Your task to perform on an android device: Go to wifi settings Image 0: 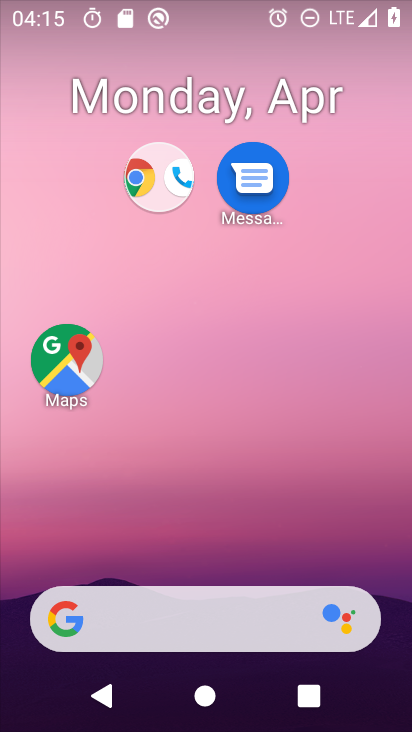
Step 0: drag from (255, 549) to (252, 5)
Your task to perform on an android device: Go to wifi settings Image 1: 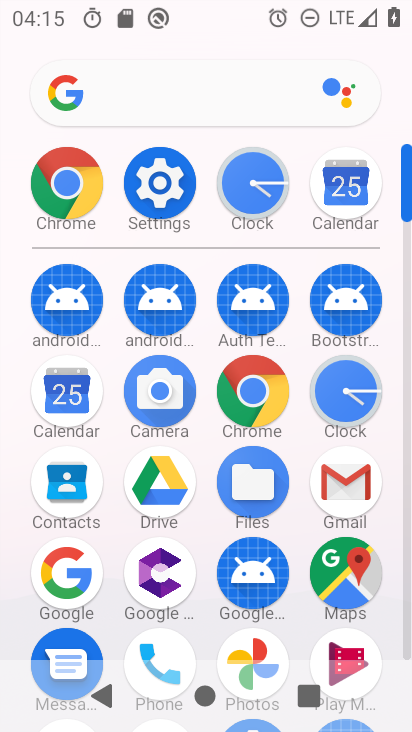
Step 1: drag from (210, 647) to (195, 152)
Your task to perform on an android device: Go to wifi settings Image 2: 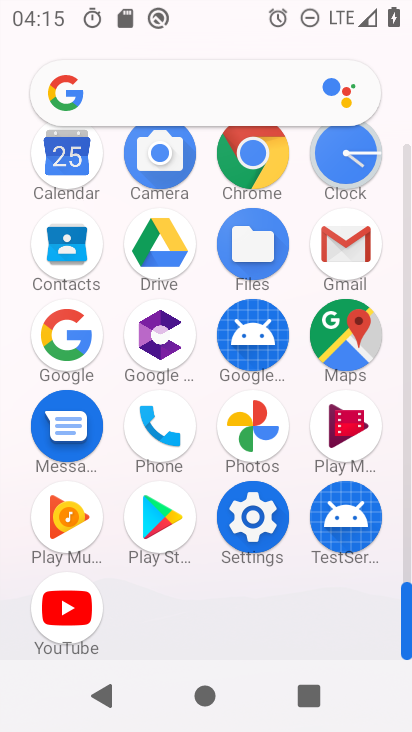
Step 2: click (252, 506)
Your task to perform on an android device: Go to wifi settings Image 3: 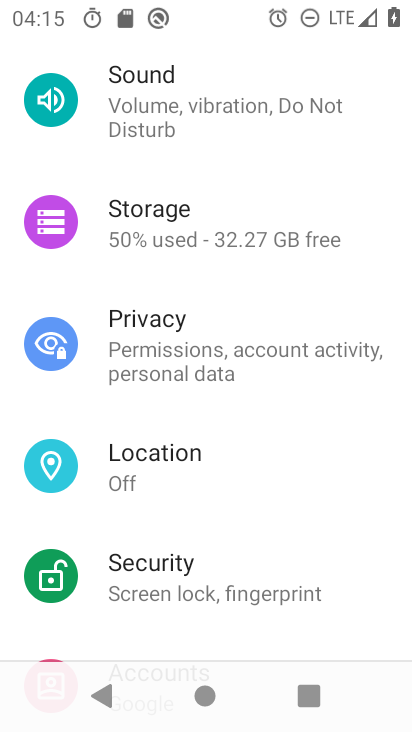
Step 3: drag from (213, 152) to (221, 701)
Your task to perform on an android device: Go to wifi settings Image 4: 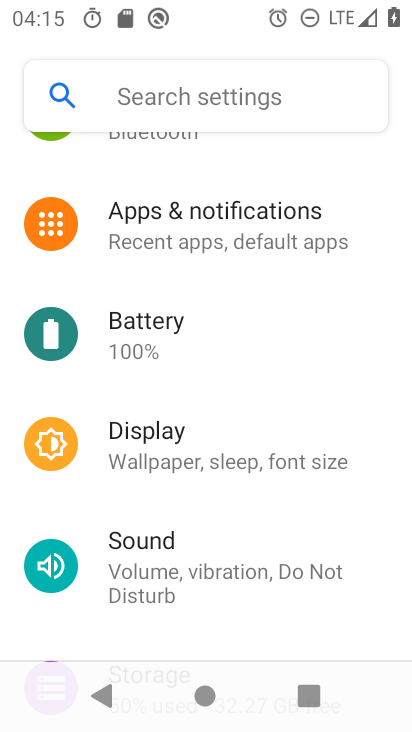
Step 4: drag from (257, 203) to (227, 636)
Your task to perform on an android device: Go to wifi settings Image 5: 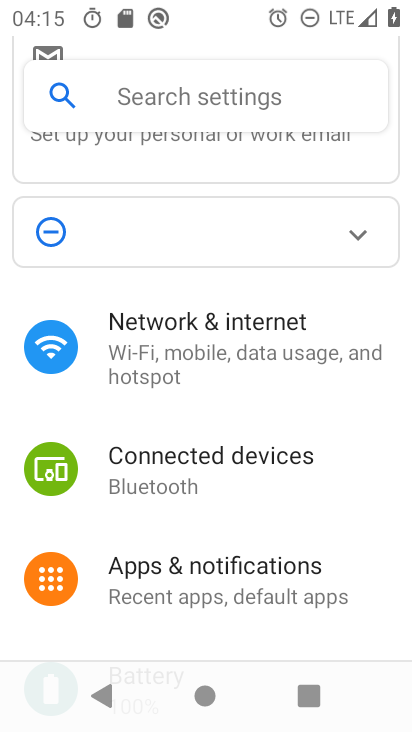
Step 5: click (286, 363)
Your task to perform on an android device: Go to wifi settings Image 6: 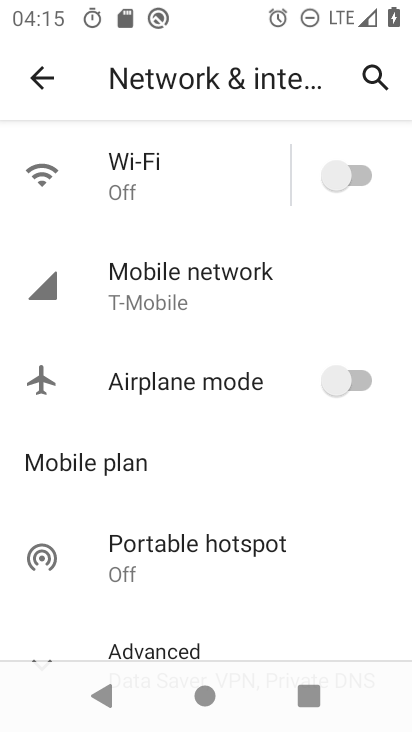
Step 6: click (177, 176)
Your task to perform on an android device: Go to wifi settings Image 7: 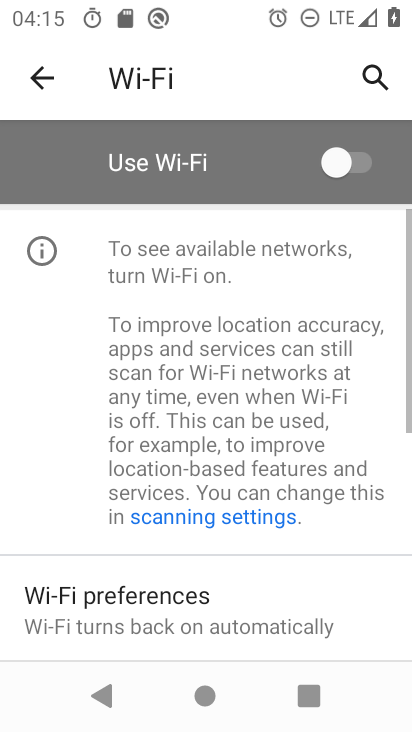
Step 7: task complete